Your task to perform on an android device: Go to Maps Image 0: 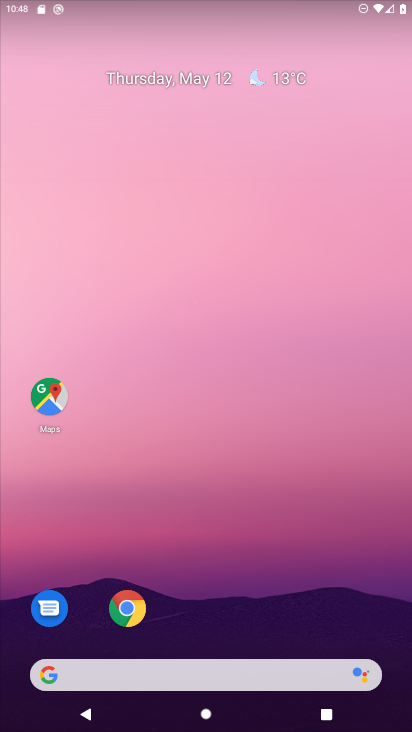
Step 0: click (45, 401)
Your task to perform on an android device: Go to Maps Image 1: 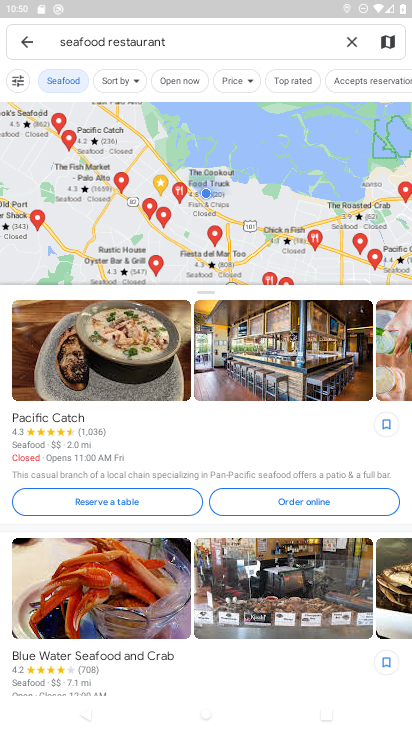
Step 1: task complete